Your task to perform on an android device: set default search engine in the chrome app Image 0: 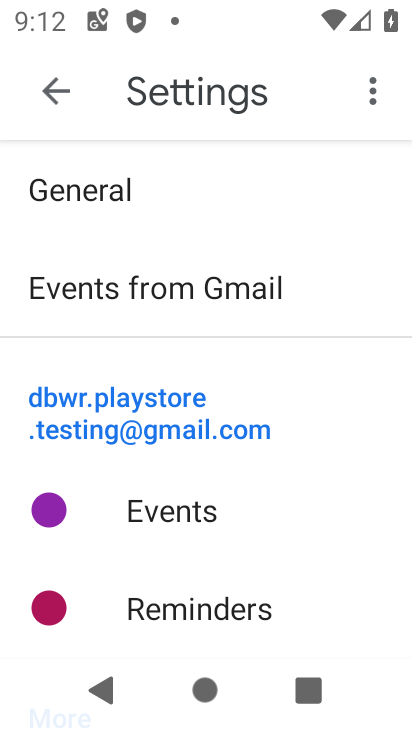
Step 0: press home button
Your task to perform on an android device: set default search engine in the chrome app Image 1: 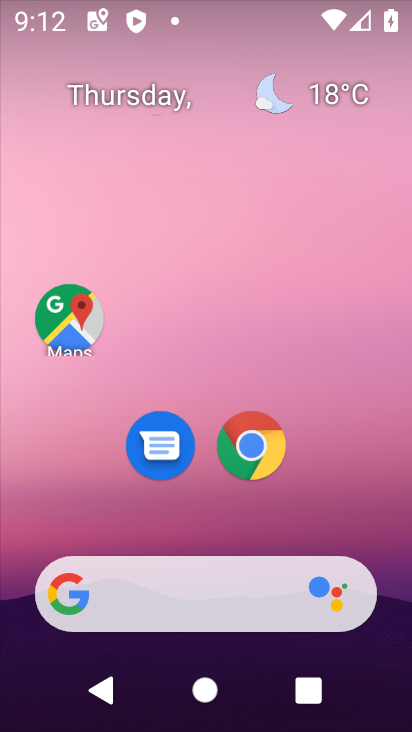
Step 1: click (252, 464)
Your task to perform on an android device: set default search engine in the chrome app Image 2: 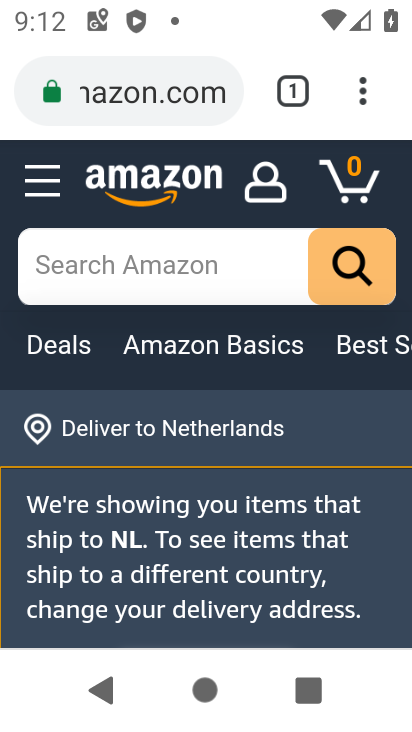
Step 2: click (364, 100)
Your task to perform on an android device: set default search engine in the chrome app Image 3: 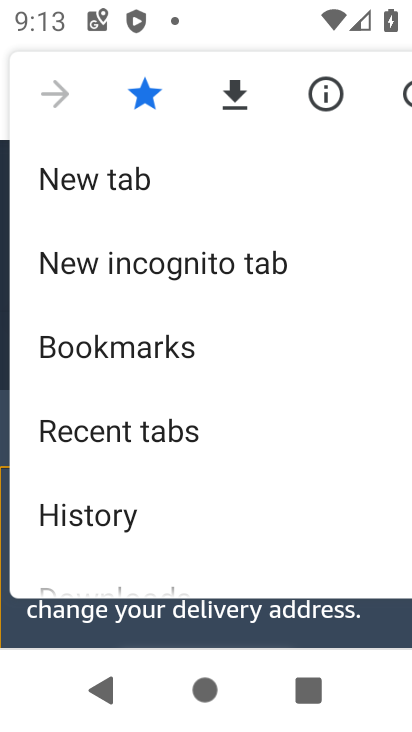
Step 3: drag from (194, 518) to (164, 62)
Your task to perform on an android device: set default search engine in the chrome app Image 4: 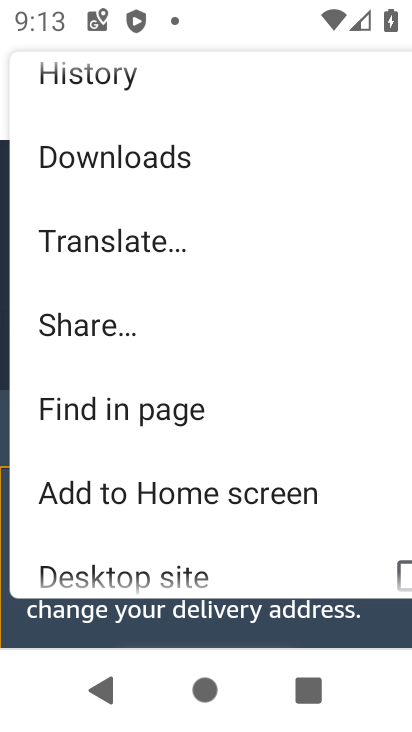
Step 4: drag from (205, 557) to (141, 174)
Your task to perform on an android device: set default search engine in the chrome app Image 5: 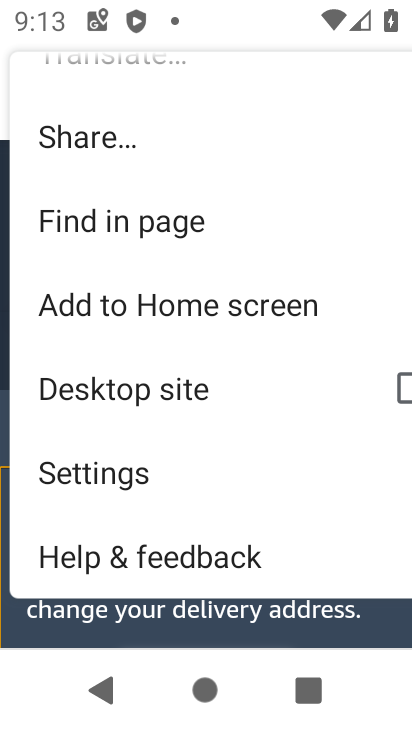
Step 5: click (163, 467)
Your task to perform on an android device: set default search engine in the chrome app Image 6: 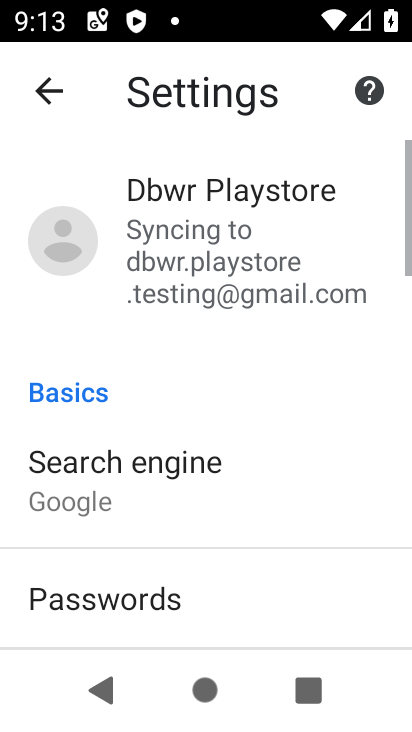
Step 6: drag from (190, 564) to (157, 244)
Your task to perform on an android device: set default search engine in the chrome app Image 7: 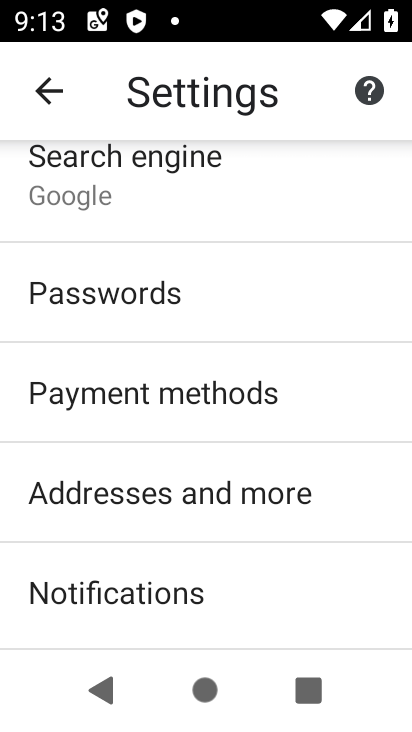
Step 7: click (162, 166)
Your task to perform on an android device: set default search engine in the chrome app Image 8: 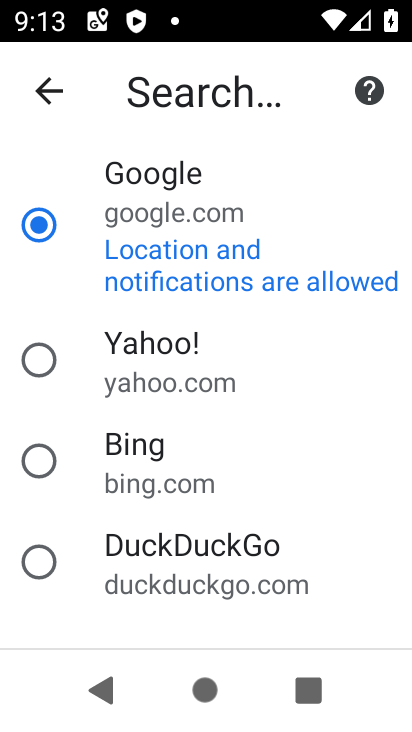
Step 8: click (174, 362)
Your task to perform on an android device: set default search engine in the chrome app Image 9: 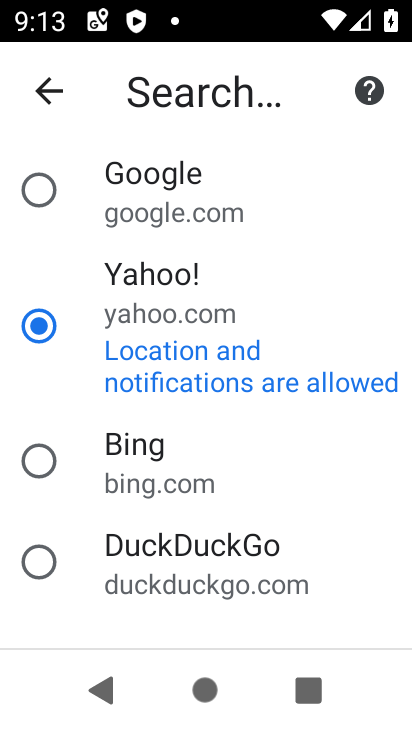
Step 9: task complete